Your task to perform on an android device: change the clock display to analog Image 0: 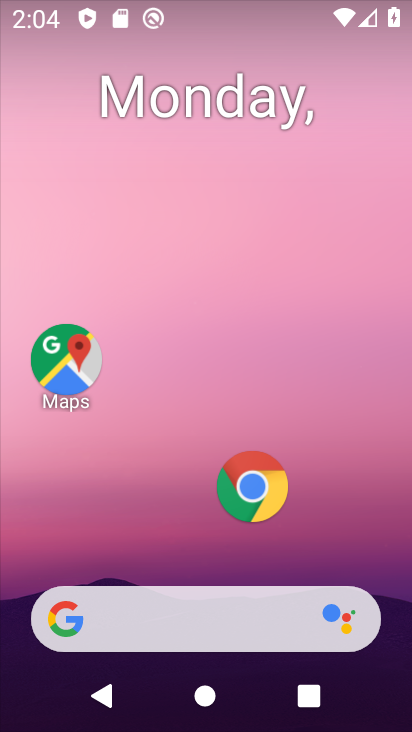
Step 0: drag from (169, 546) to (202, 2)
Your task to perform on an android device: change the clock display to analog Image 1: 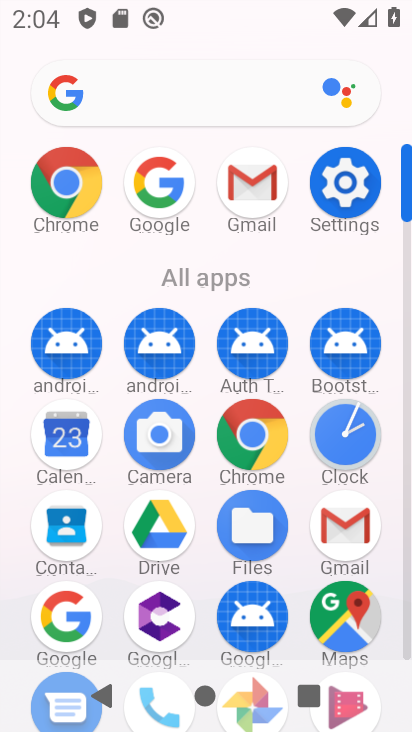
Step 1: click (331, 431)
Your task to perform on an android device: change the clock display to analog Image 2: 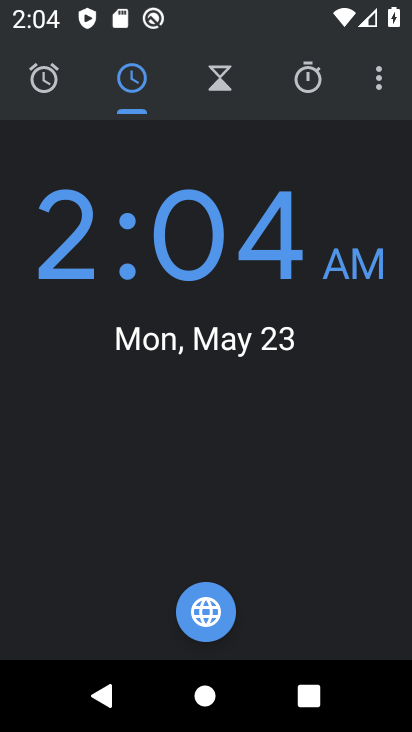
Step 2: click (386, 72)
Your task to perform on an android device: change the clock display to analog Image 3: 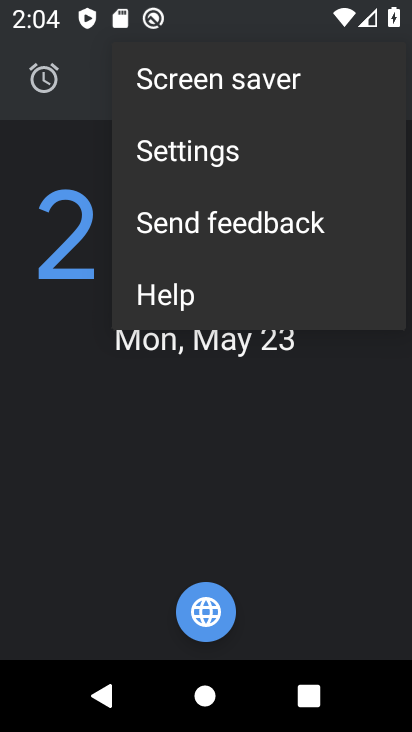
Step 3: click (259, 166)
Your task to perform on an android device: change the clock display to analog Image 4: 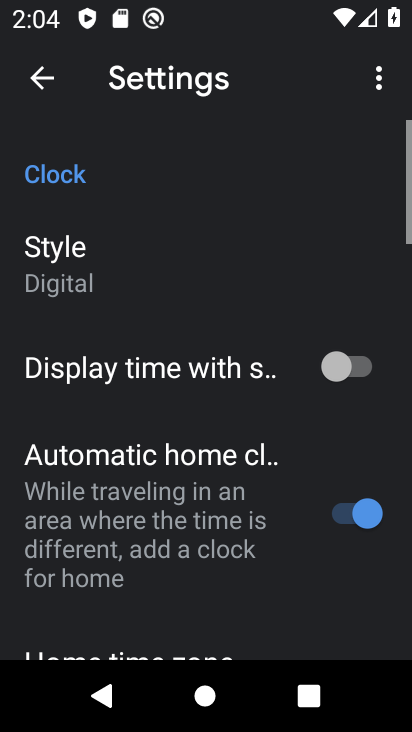
Step 4: click (103, 287)
Your task to perform on an android device: change the clock display to analog Image 5: 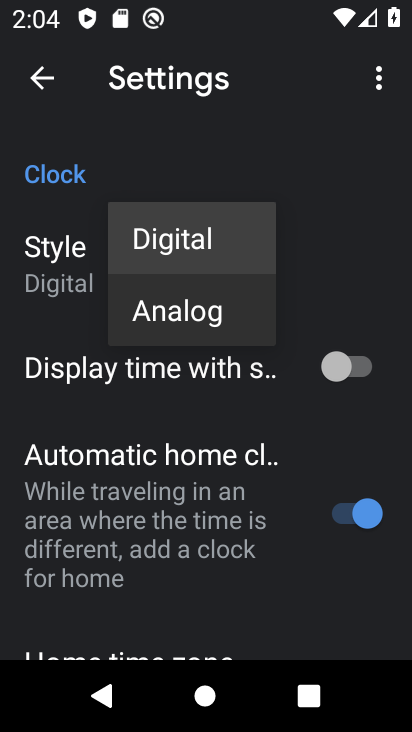
Step 5: click (169, 312)
Your task to perform on an android device: change the clock display to analog Image 6: 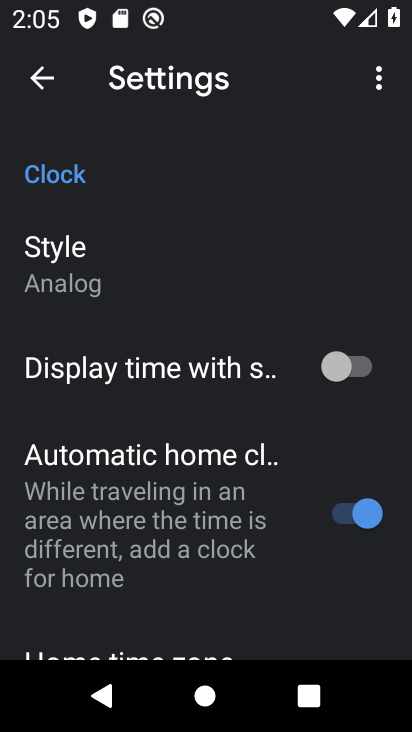
Step 6: task complete